Your task to perform on an android device: Toggle the flashlight Image 0: 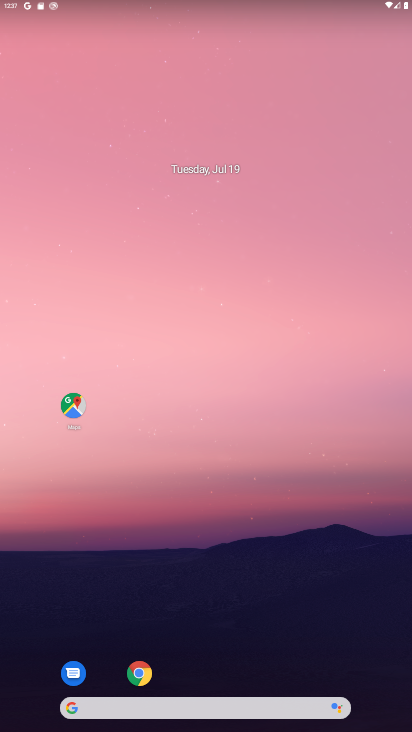
Step 0: drag from (349, 5) to (384, 469)
Your task to perform on an android device: Toggle the flashlight Image 1: 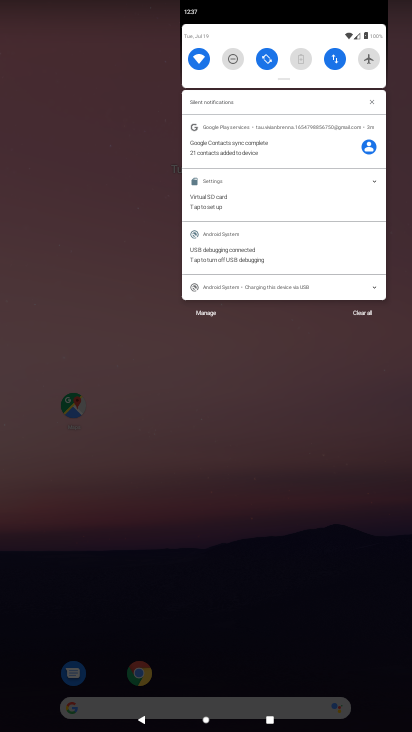
Step 1: task complete